Your task to perform on an android device: Open Google Maps and go to "Timeline" Image 0: 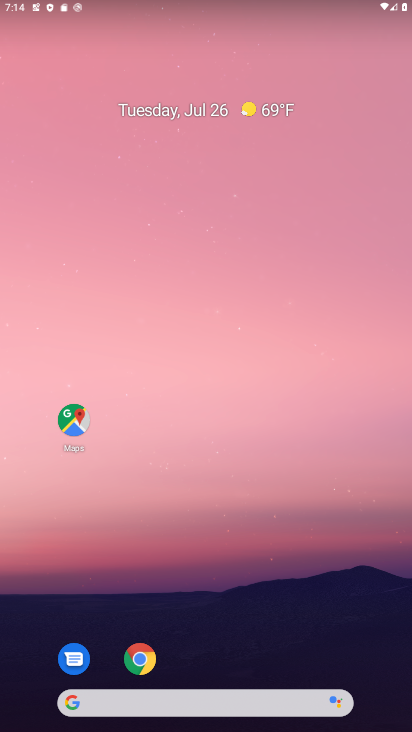
Step 0: click (291, 81)
Your task to perform on an android device: Open Google Maps and go to "Timeline" Image 1: 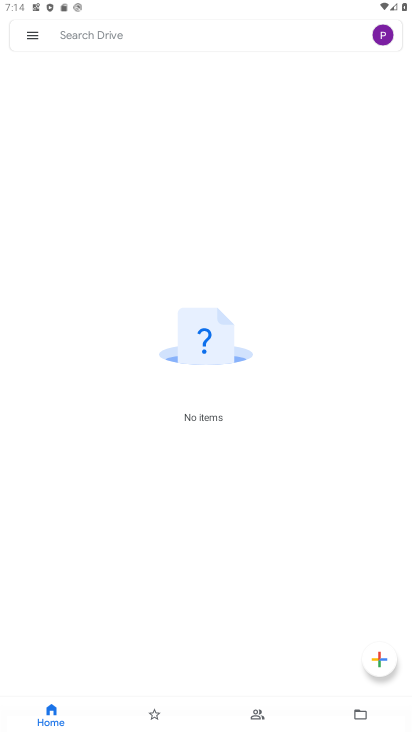
Step 1: press home button
Your task to perform on an android device: Open Google Maps and go to "Timeline" Image 2: 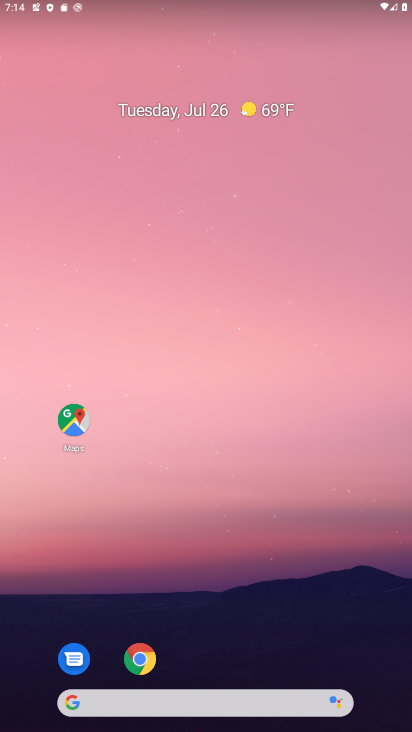
Step 2: drag from (263, 699) to (312, 80)
Your task to perform on an android device: Open Google Maps and go to "Timeline" Image 3: 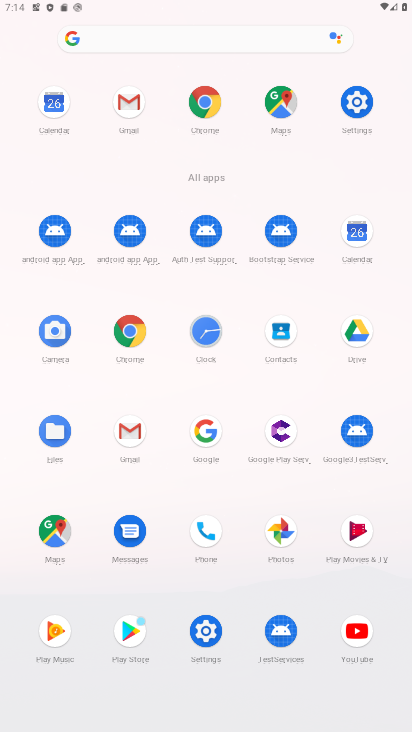
Step 3: click (277, 104)
Your task to perform on an android device: Open Google Maps and go to "Timeline" Image 4: 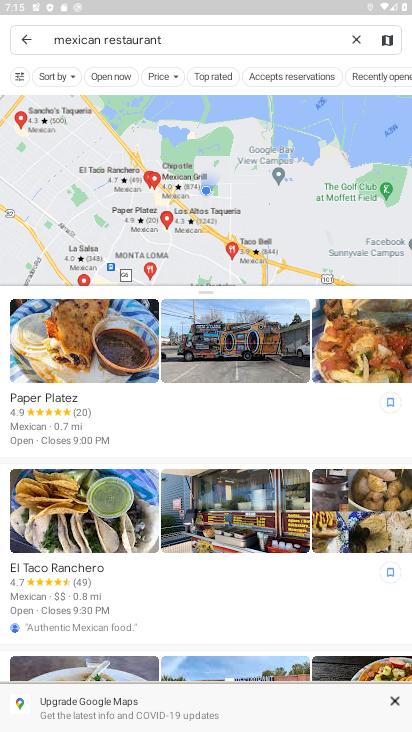
Step 4: click (22, 41)
Your task to perform on an android device: Open Google Maps and go to "Timeline" Image 5: 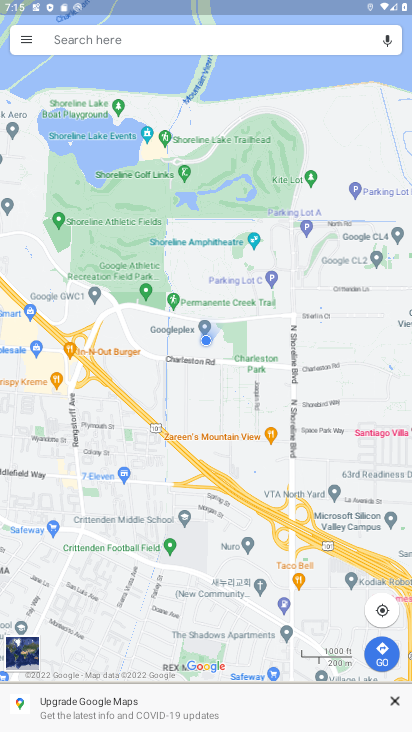
Step 5: click (22, 40)
Your task to perform on an android device: Open Google Maps and go to "Timeline" Image 6: 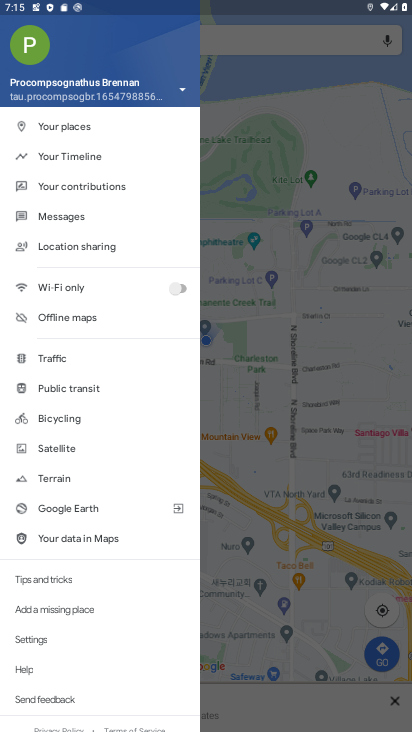
Step 6: click (86, 157)
Your task to perform on an android device: Open Google Maps and go to "Timeline" Image 7: 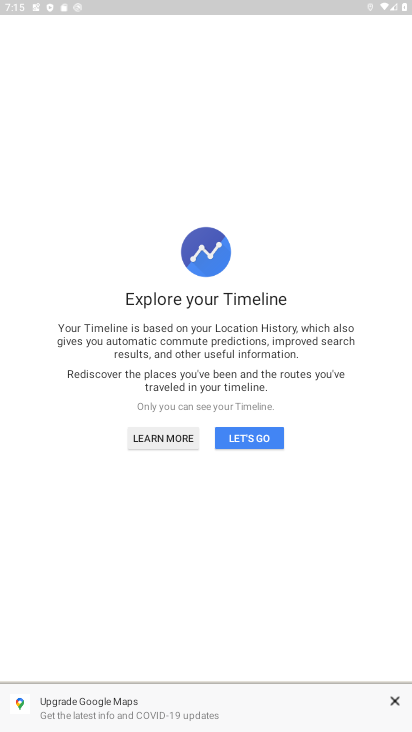
Step 7: click (231, 436)
Your task to perform on an android device: Open Google Maps and go to "Timeline" Image 8: 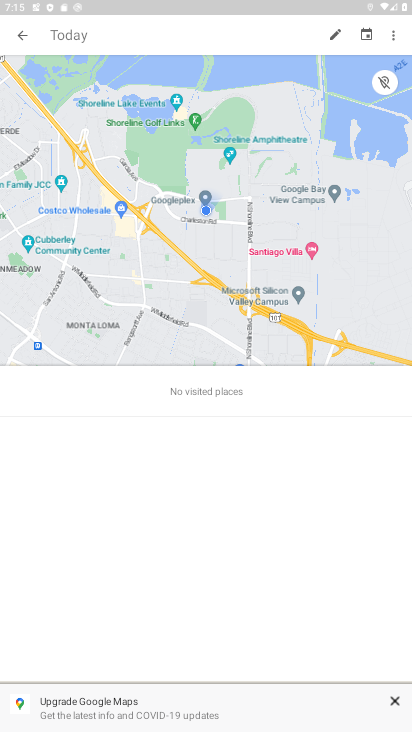
Step 8: task complete